Your task to perform on an android device: see tabs open on other devices in the chrome app Image 0: 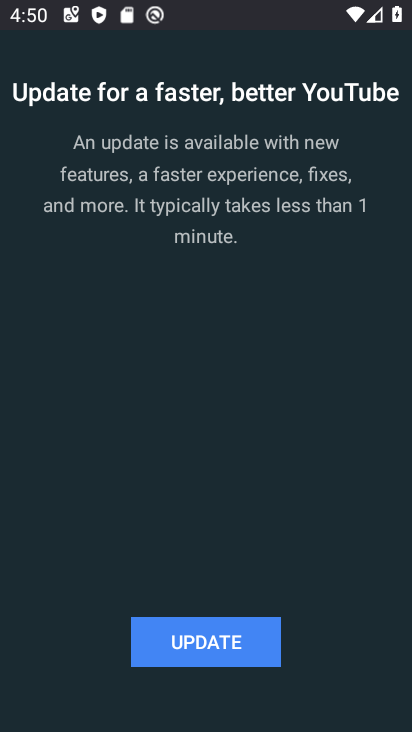
Step 0: press home button
Your task to perform on an android device: see tabs open on other devices in the chrome app Image 1: 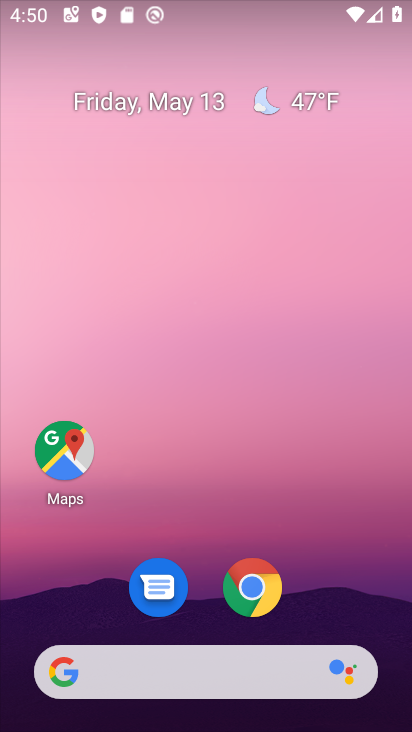
Step 1: drag from (360, 170) to (354, 75)
Your task to perform on an android device: see tabs open on other devices in the chrome app Image 2: 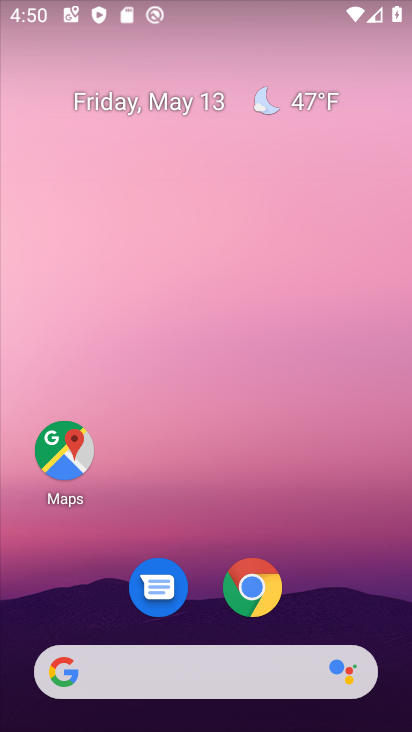
Step 2: click (257, 600)
Your task to perform on an android device: see tabs open on other devices in the chrome app Image 3: 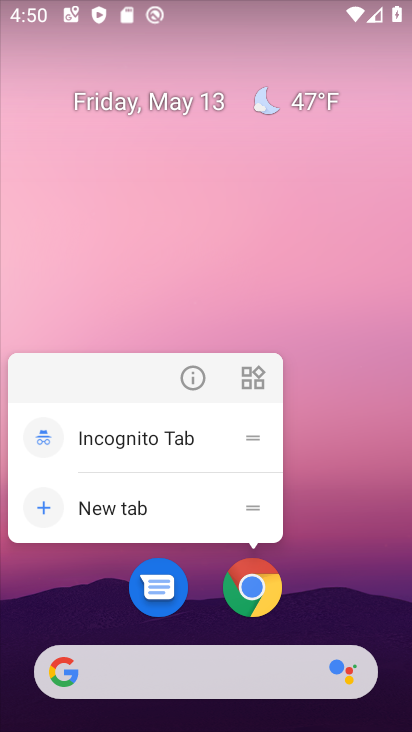
Step 3: click (246, 591)
Your task to perform on an android device: see tabs open on other devices in the chrome app Image 4: 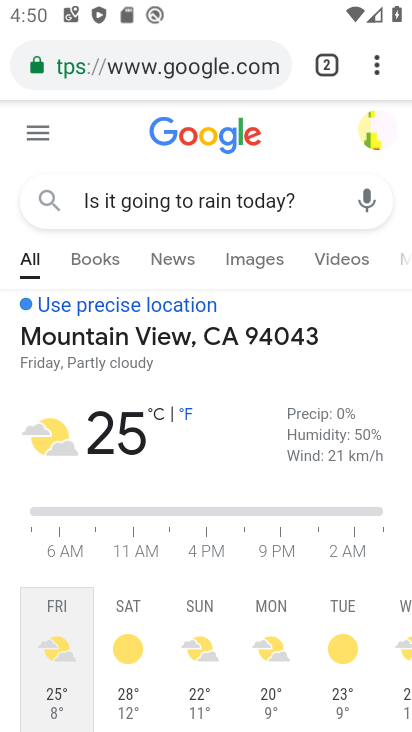
Step 4: drag from (373, 67) to (181, 212)
Your task to perform on an android device: see tabs open on other devices in the chrome app Image 5: 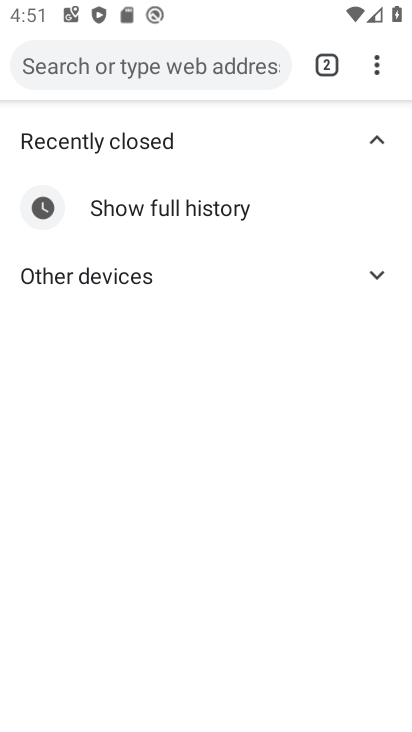
Step 5: click (373, 273)
Your task to perform on an android device: see tabs open on other devices in the chrome app Image 6: 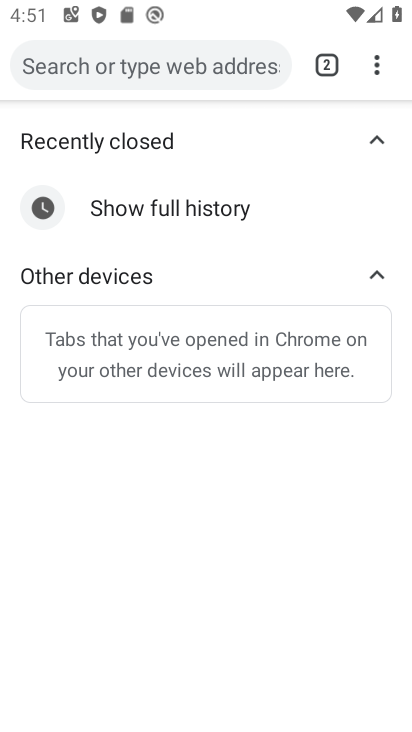
Step 6: task complete